Your task to perform on an android device: toggle priority inbox in the gmail app Image 0: 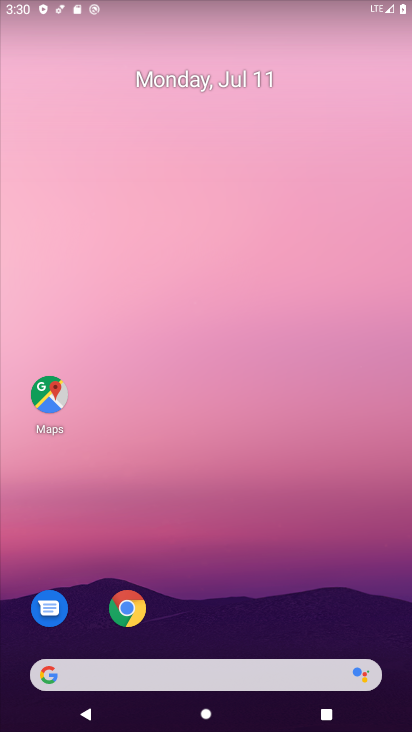
Step 0: drag from (193, 635) to (157, 0)
Your task to perform on an android device: toggle priority inbox in the gmail app Image 1: 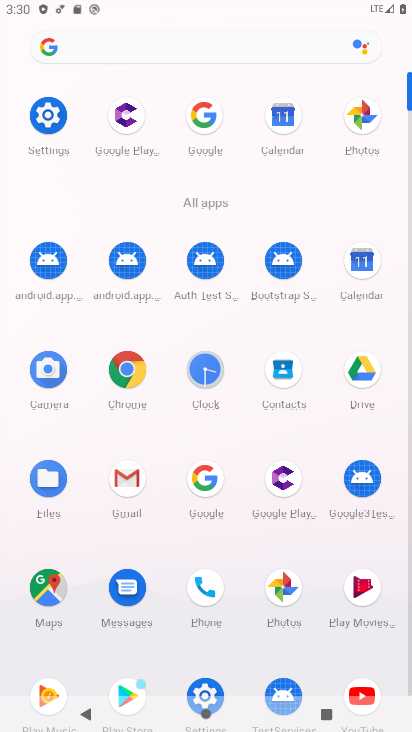
Step 1: click (133, 487)
Your task to perform on an android device: toggle priority inbox in the gmail app Image 2: 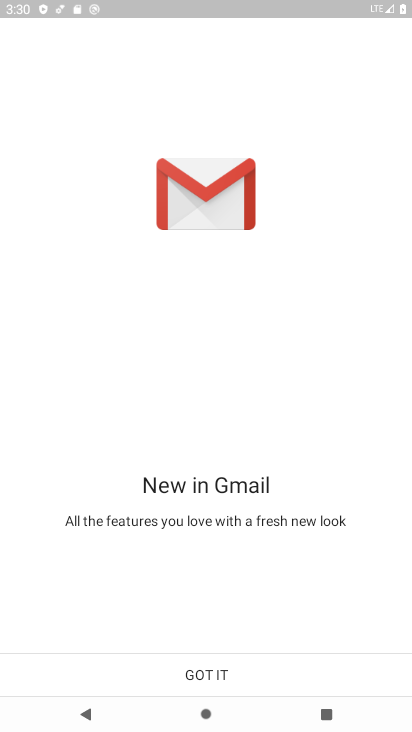
Step 2: click (212, 668)
Your task to perform on an android device: toggle priority inbox in the gmail app Image 3: 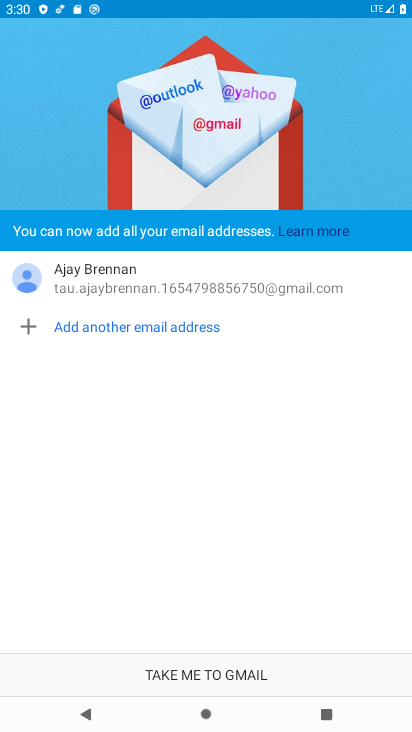
Step 3: click (213, 674)
Your task to perform on an android device: toggle priority inbox in the gmail app Image 4: 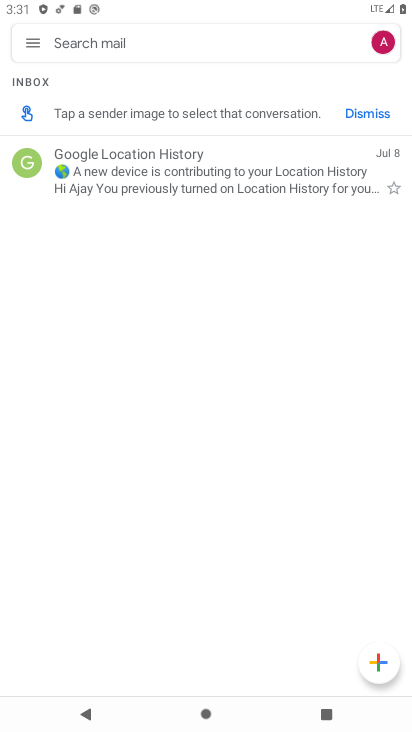
Step 4: click (28, 39)
Your task to perform on an android device: toggle priority inbox in the gmail app Image 5: 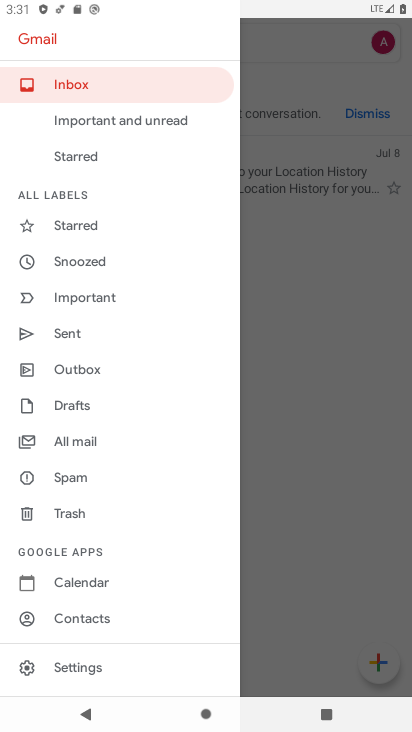
Step 5: click (79, 665)
Your task to perform on an android device: toggle priority inbox in the gmail app Image 6: 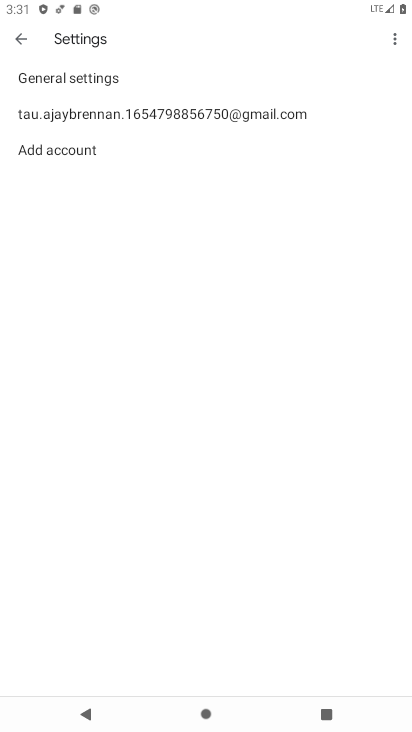
Step 6: click (69, 116)
Your task to perform on an android device: toggle priority inbox in the gmail app Image 7: 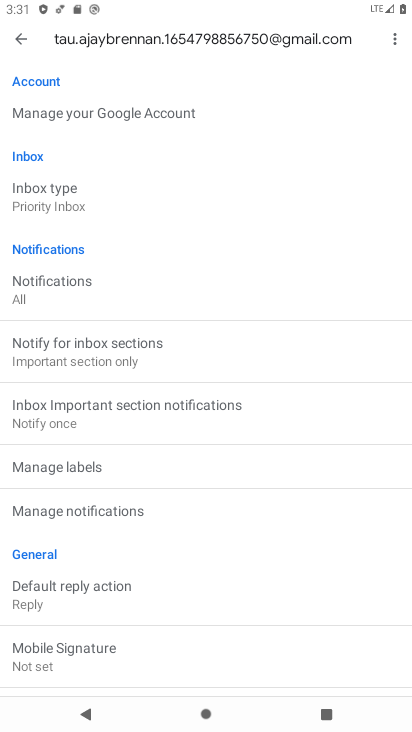
Step 7: click (88, 187)
Your task to perform on an android device: toggle priority inbox in the gmail app Image 8: 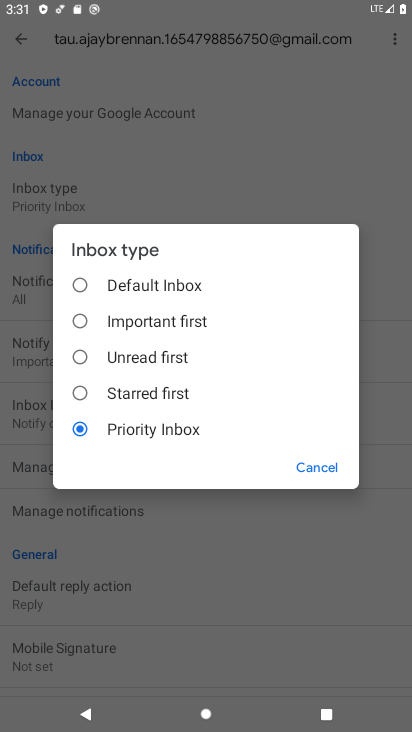
Step 8: click (106, 389)
Your task to perform on an android device: toggle priority inbox in the gmail app Image 9: 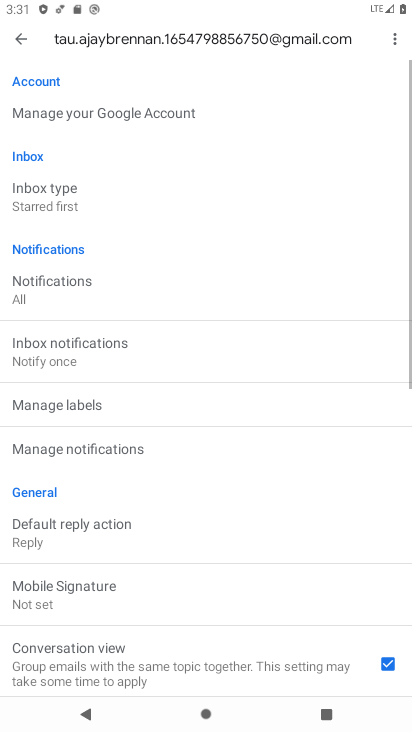
Step 9: task complete